Your task to perform on an android device: Open ESPN.com Image 0: 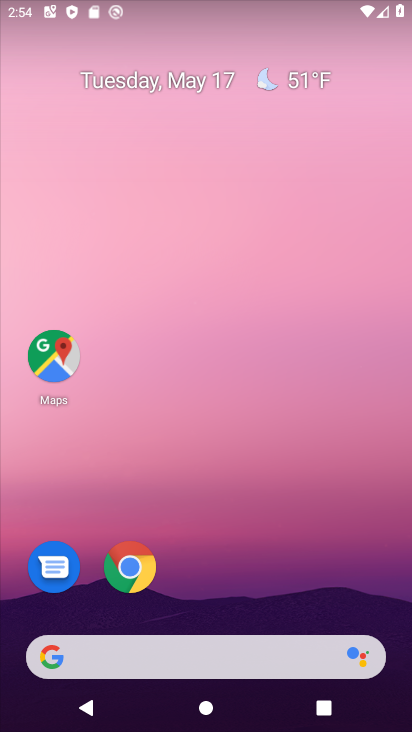
Step 0: click (118, 564)
Your task to perform on an android device: Open ESPN.com Image 1: 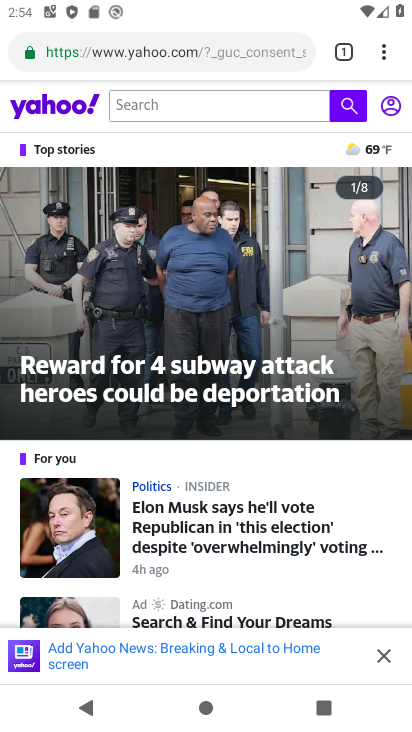
Step 1: click (186, 54)
Your task to perform on an android device: Open ESPN.com Image 2: 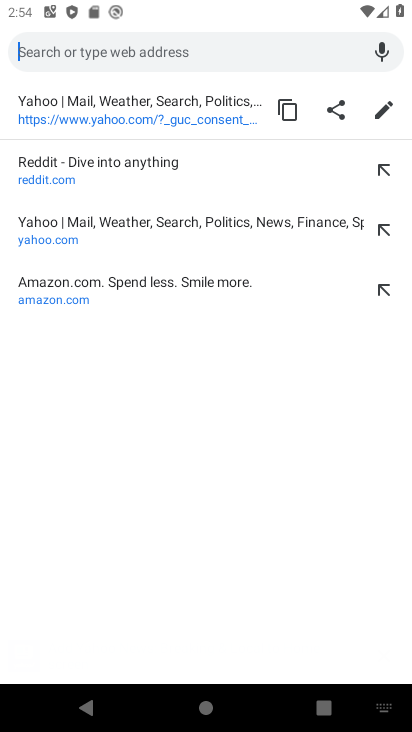
Step 2: type "espn.com"
Your task to perform on an android device: Open ESPN.com Image 3: 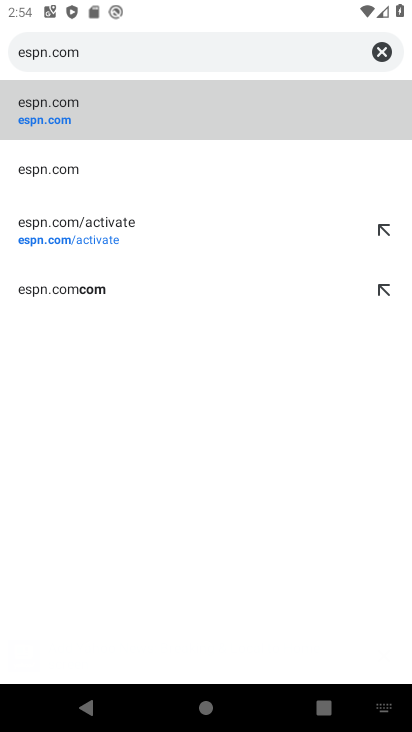
Step 3: click (88, 116)
Your task to perform on an android device: Open ESPN.com Image 4: 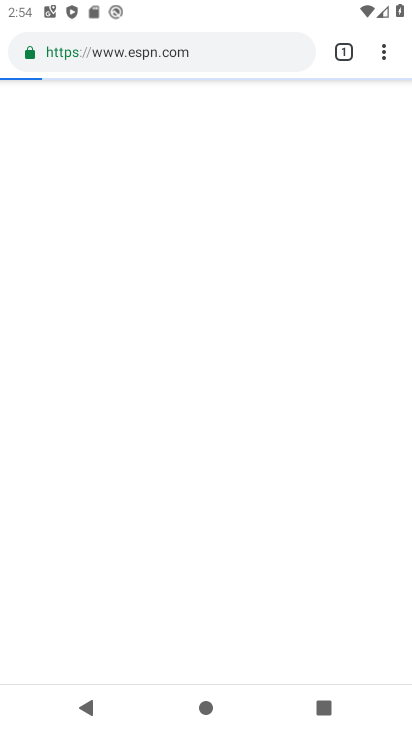
Step 4: task complete